Your task to perform on an android device: uninstall "Facebook" Image 0: 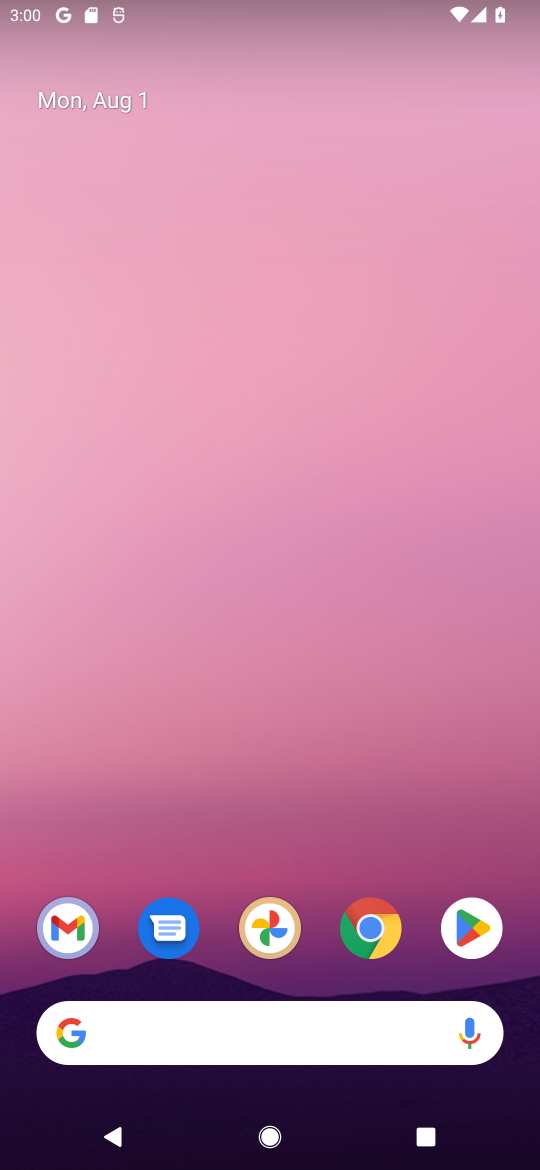
Step 0: click (472, 933)
Your task to perform on an android device: uninstall "Facebook" Image 1: 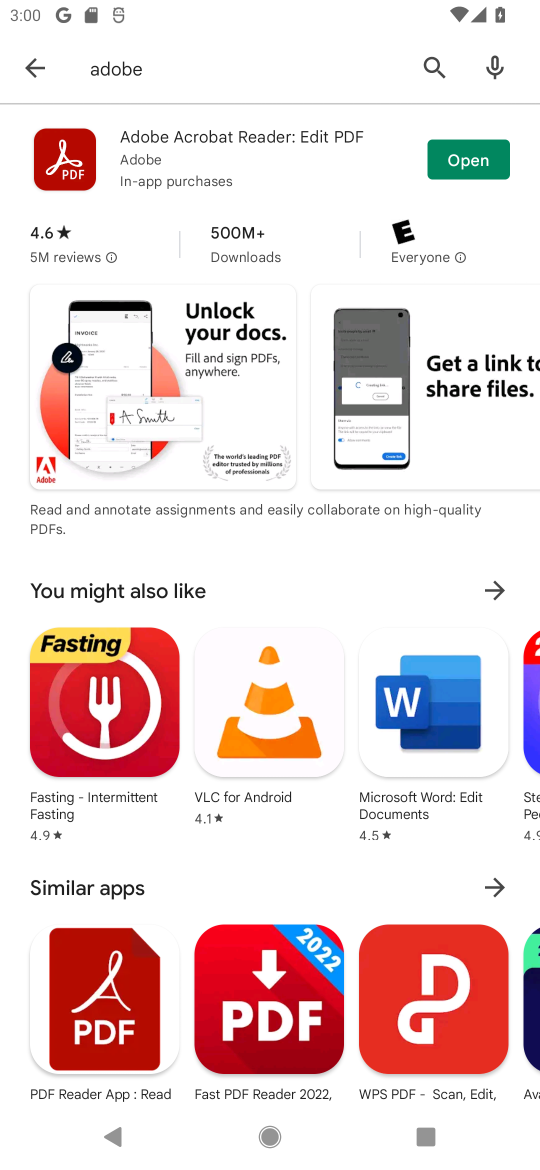
Step 1: click (410, 64)
Your task to perform on an android device: uninstall "Facebook" Image 2: 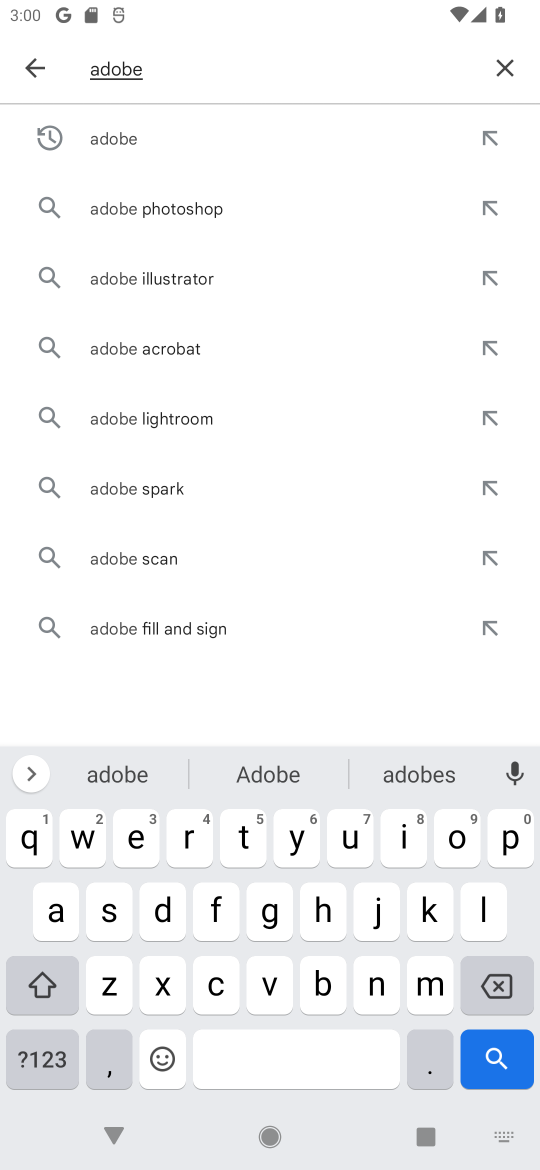
Step 2: click (509, 71)
Your task to perform on an android device: uninstall "Facebook" Image 3: 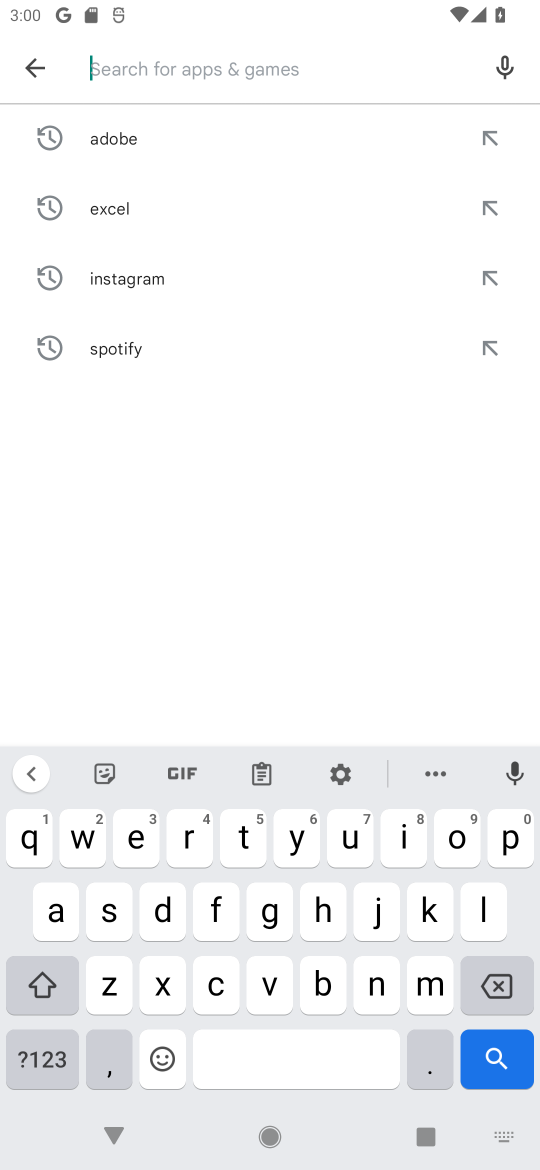
Step 3: click (208, 912)
Your task to perform on an android device: uninstall "Facebook" Image 4: 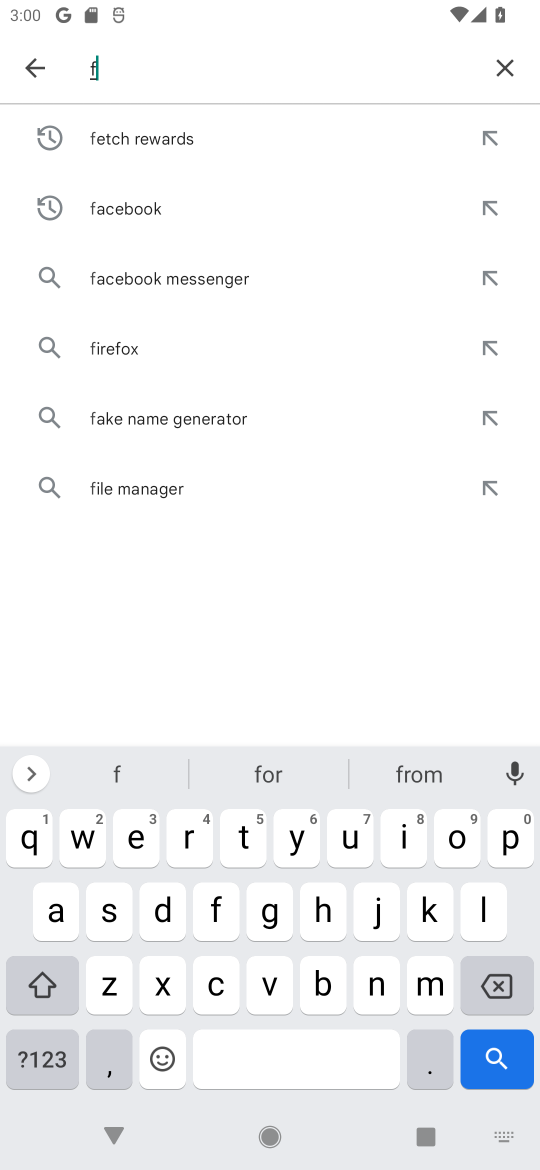
Step 4: click (160, 202)
Your task to perform on an android device: uninstall "Facebook" Image 5: 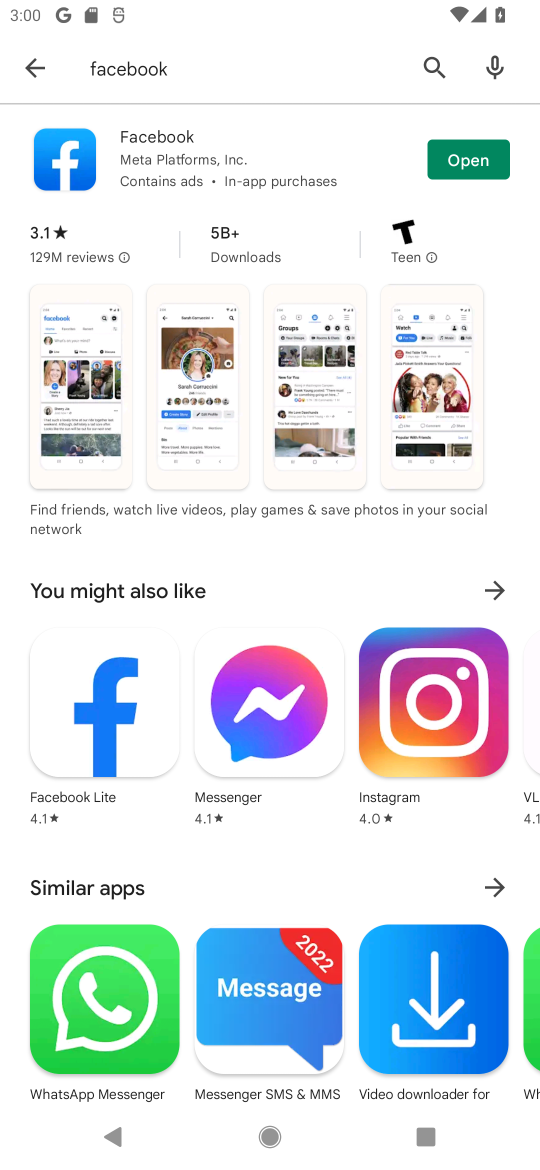
Step 5: click (84, 146)
Your task to perform on an android device: uninstall "Facebook" Image 6: 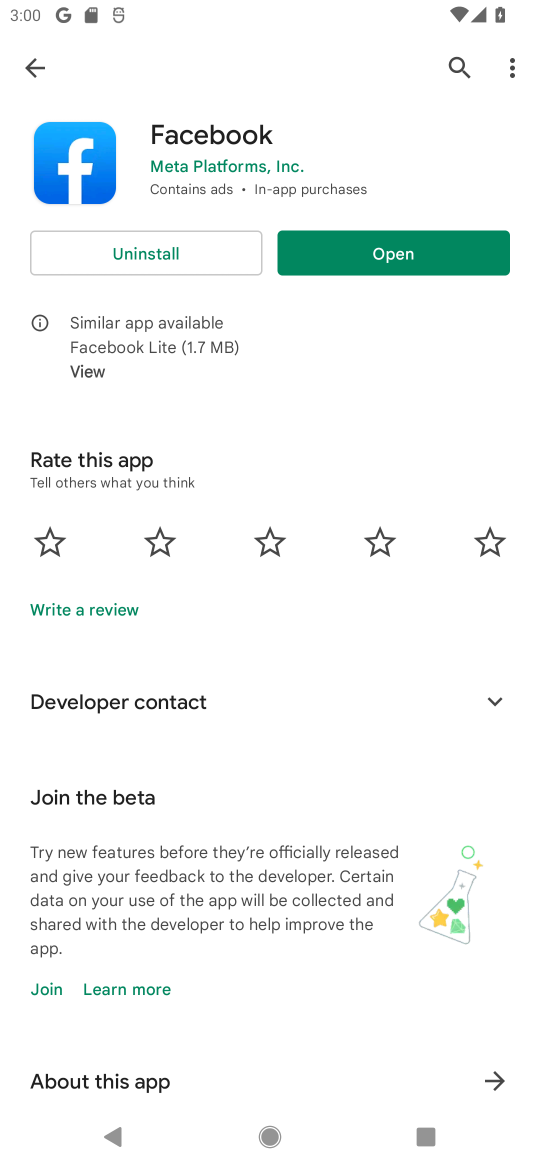
Step 6: click (158, 246)
Your task to perform on an android device: uninstall "Facebook" Image 7: 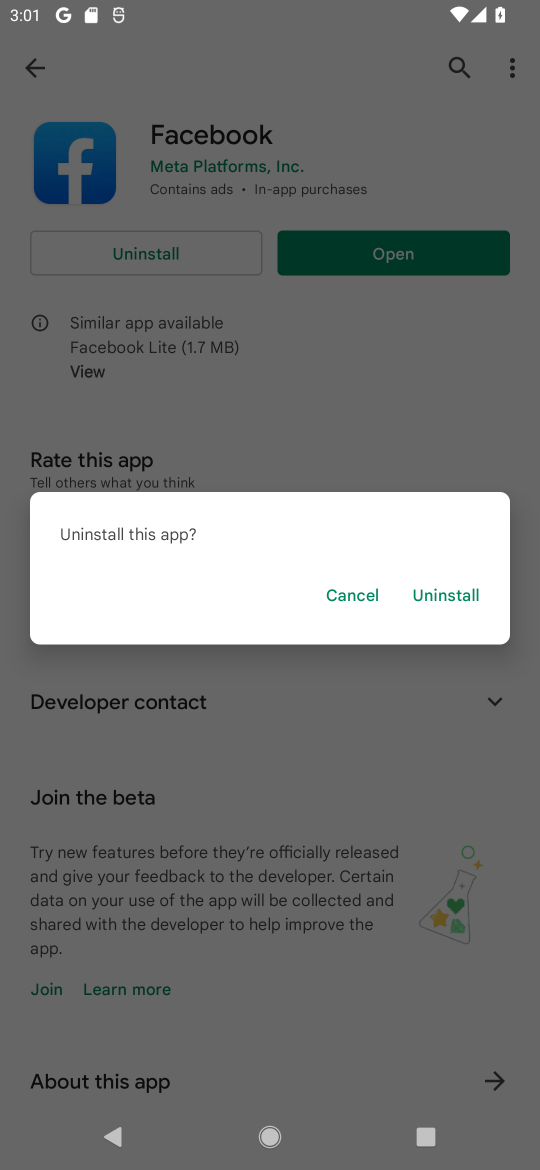
Step 7: click (458, 603)
Your task to perform on an android device: uninstall "Facebook" Image 8: 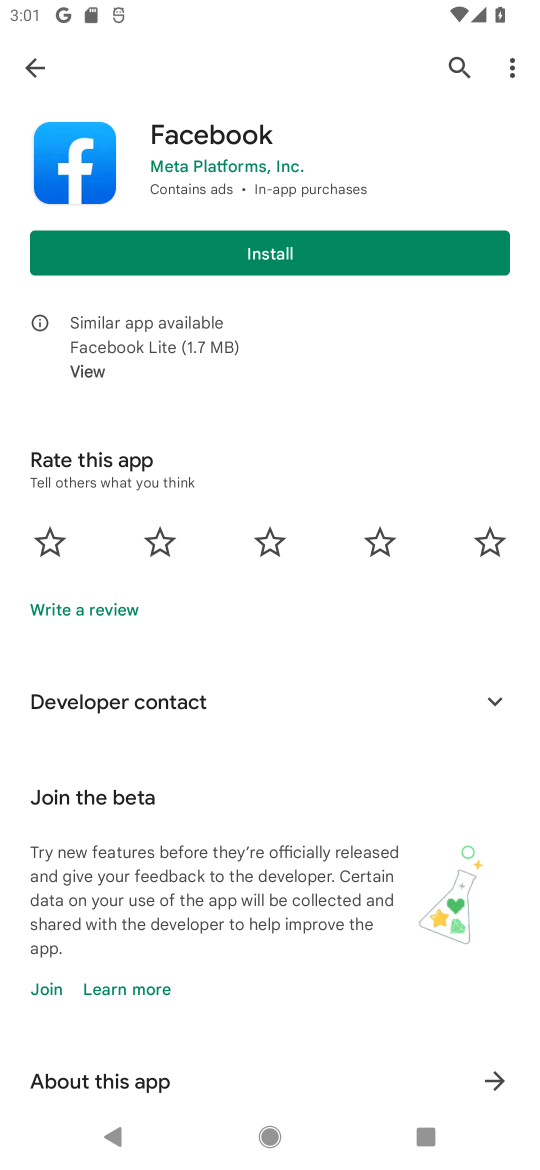
Step 8: task complete